Your task to perform on an android device: turn off javascript in the chrome app Image 0: 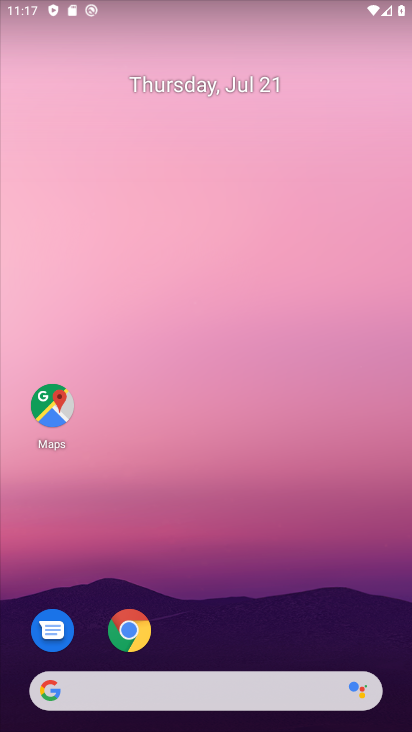
Step 0: click (142, 618)
Your task to perform on an android device: turn off javascript in the chrome app Image 1: 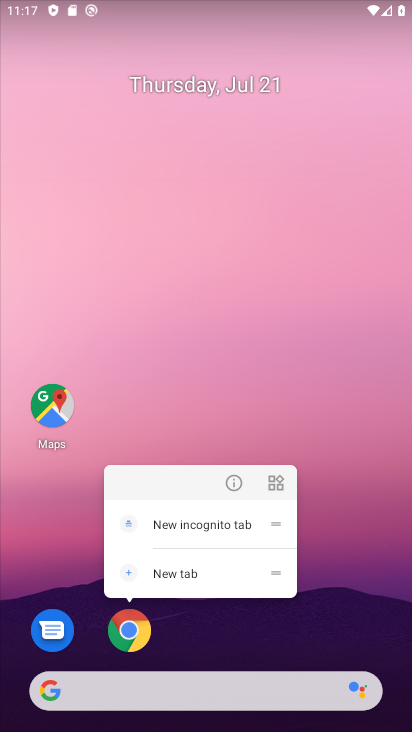
Step 1: click (141, 622)
Your task to perform on an android device: turn off javascript in the chrome app Image 2: 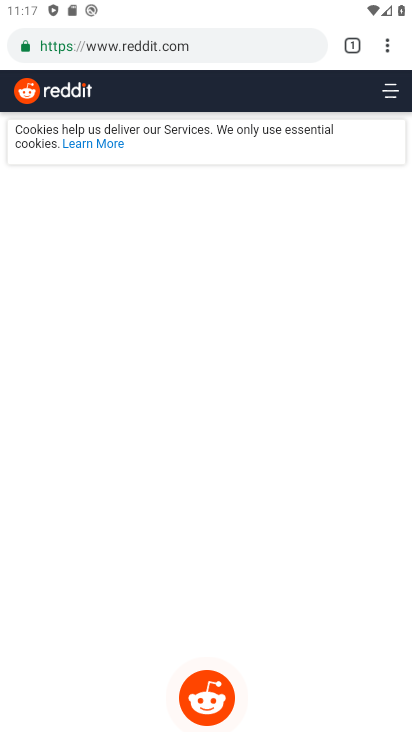
Step 2: click (391, 44)
Your task to perform on an android device: turn off javascript in the chrome app Image 3: 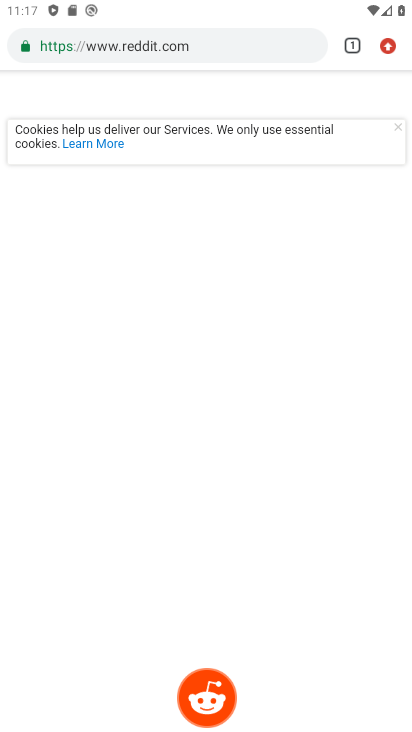
Step 3: click (390, 43)
Your task to perform on an android device: turn off javascript in the chrome app Image 4: 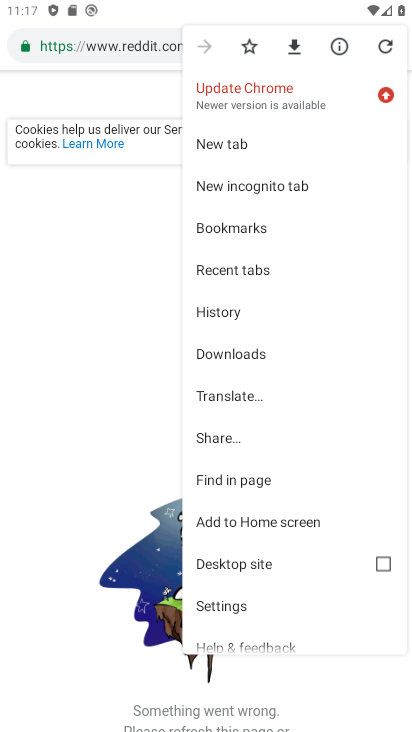
Step 4: click (244, 601)
Your task to perform on an android device: turn off javascript in the chrome app Image 5: 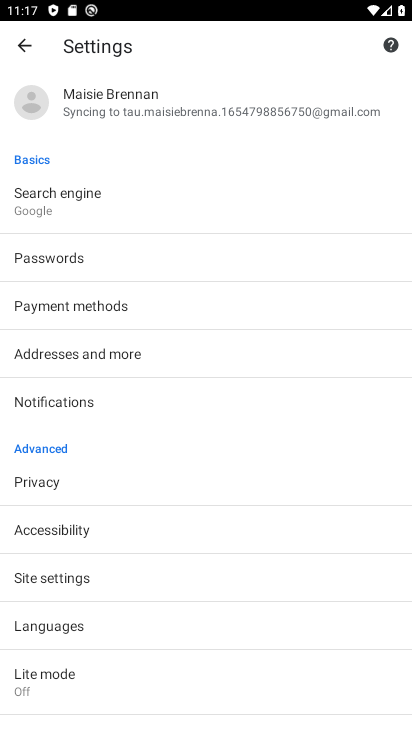
Step 5: click (93, 581)
Your task to perform on an android device: turn off javascript in the chrome app Image 6: 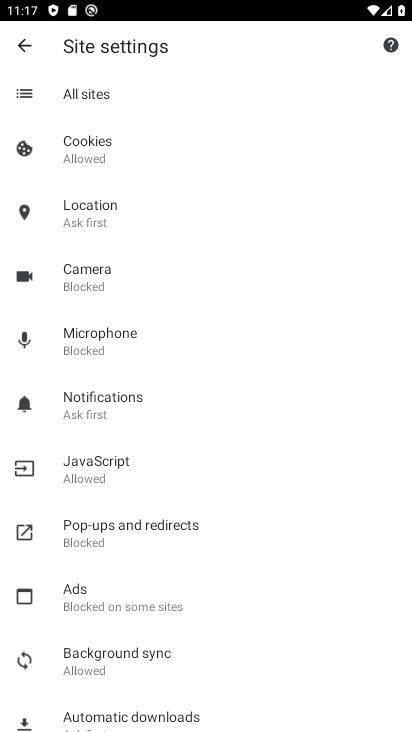
Step 6: click (106, 456)
Your task to perform on an android device: turn off javascript in the chrome app Image 7: 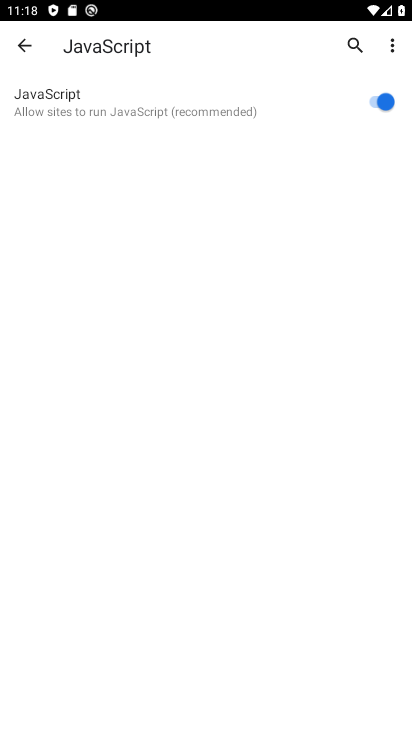
Step 7: click (369, 92)
Your task to perform on an android device: turn off javascript in the chrome app Image 8: 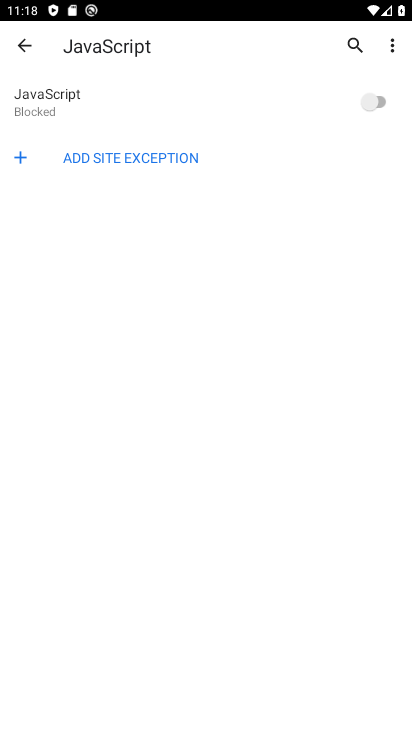
Step 8: task complete